Your task to perform on an android device: turn smart compose on in the gmail app Image 0: 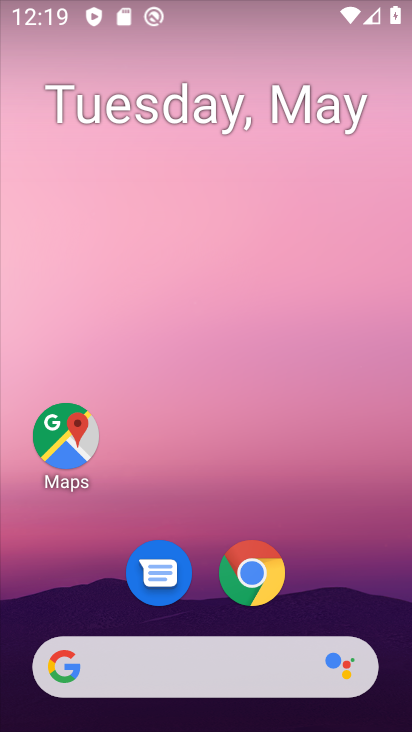
Step 0: drag from (322, 557) to (323, 4)
Your task to perform on an android device: turn smart compose on in the gmail app Image 1: 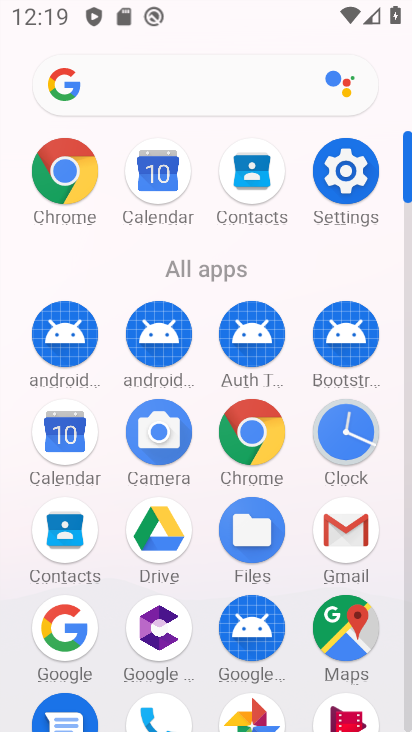
Step 1: click (363, 545)
Your task to perform on an android device: turn smart compose on in the gmail app Image 2: 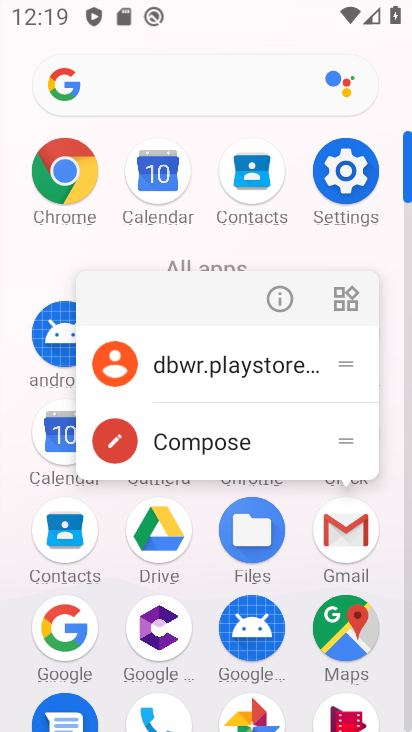
Step 2: click (363, 545)
Your task to perform on an android device: turn smart compose on in the gmail app Image 3: 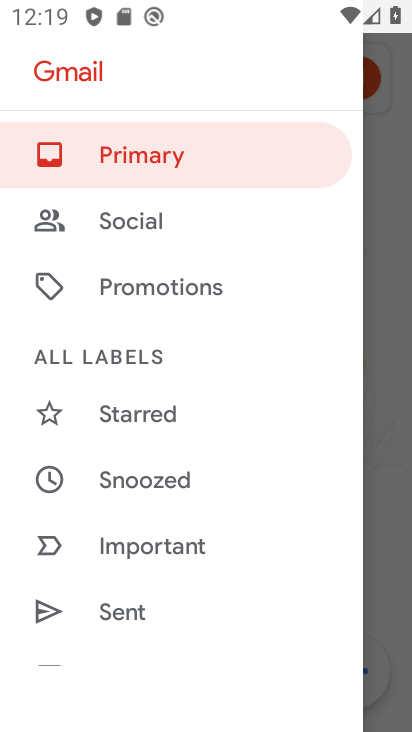
Step 3: drag from (200, 562) to (308, 77)
Your task to perform on an android device: turn smart compose on in the gmail app Image 4: 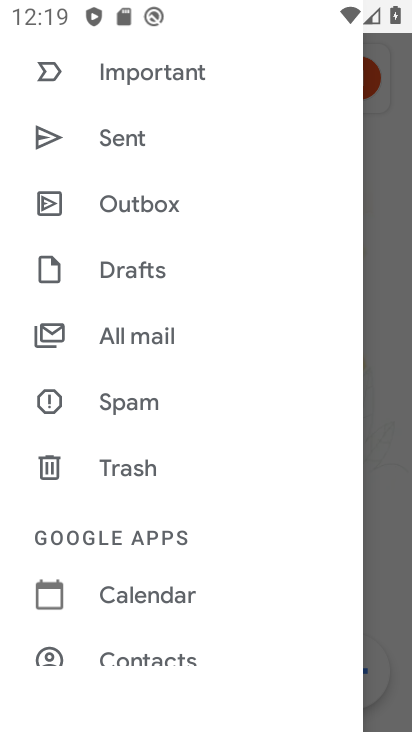
Step 4: drag from (166, 581) to (306, 48)
Your task to perform on an android device: turn smart compose on in the gmail app Image 5: 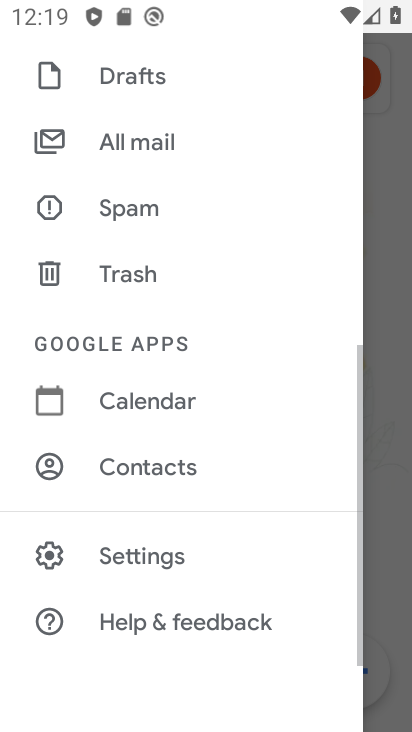
Step 5: click (149, 547)
Your task to perform on an android device: turn smart compose on in the gmail app Image 6: 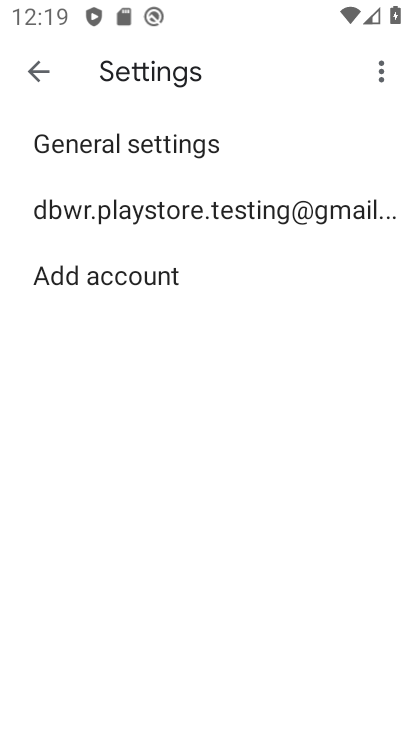
Step 6: click (196, 220)
Your task to perform on an android device: turn smart compose on in the gmail app Image 7: 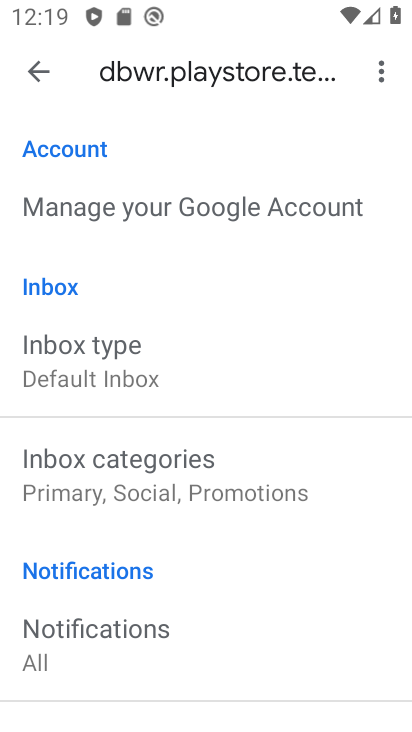
Step 7: task complete